Your task to perform on an android device: Set the phone to "Do not disturb". Image 0: 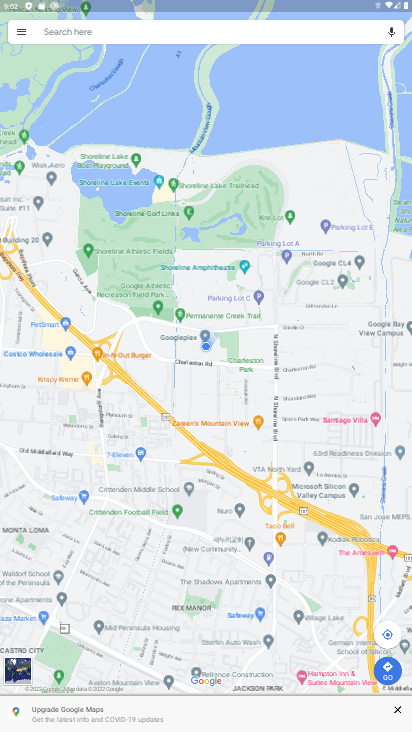
Step 0: press home button
Your task to perform on an android device: Set the phone to "Do not disturb". Image 1: 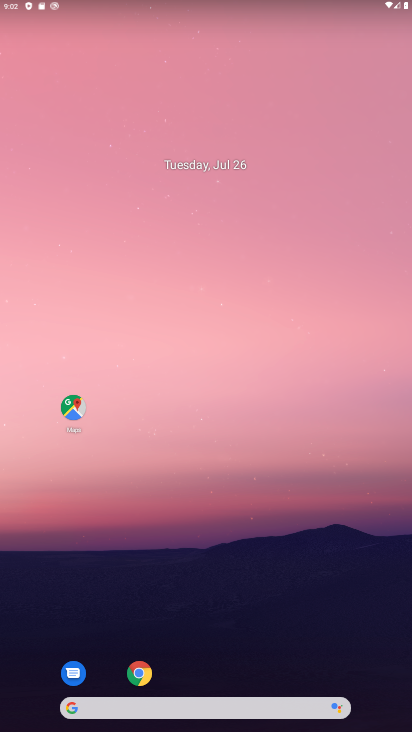
Step 1: drag from (233, 673) to (285, 10)
Your task to perform on an android device: Set the phone to "Do not disturb". Image 2: 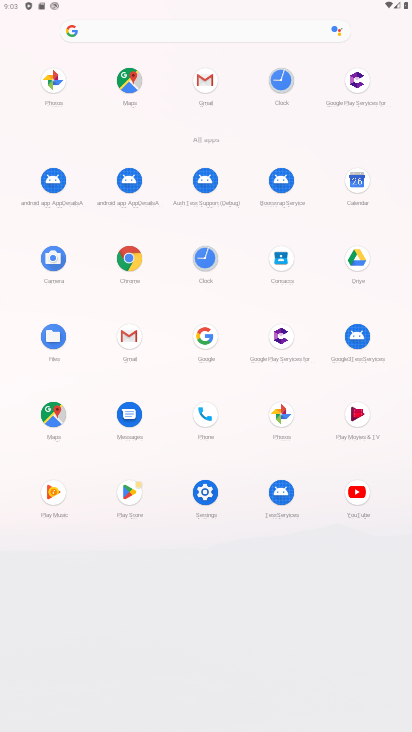
Step 2: click (199, 490)
Your task to perform on an android device: Set the phone to "Do not disturb". Image 3: 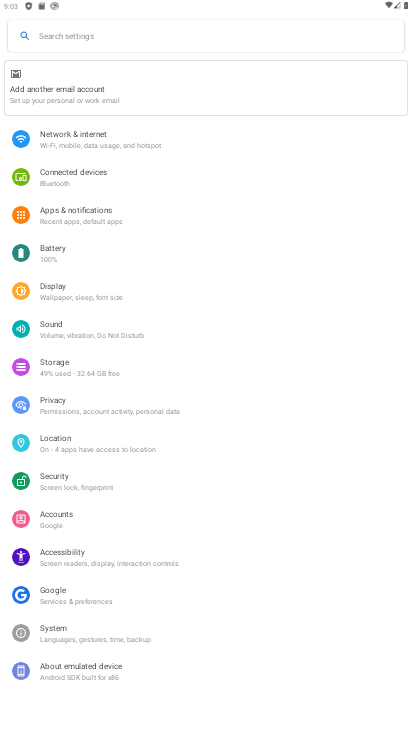
Step 3: click (65, 335)
Your task to perform on an android device: Set the phone to "Do not disturb". Image 4: 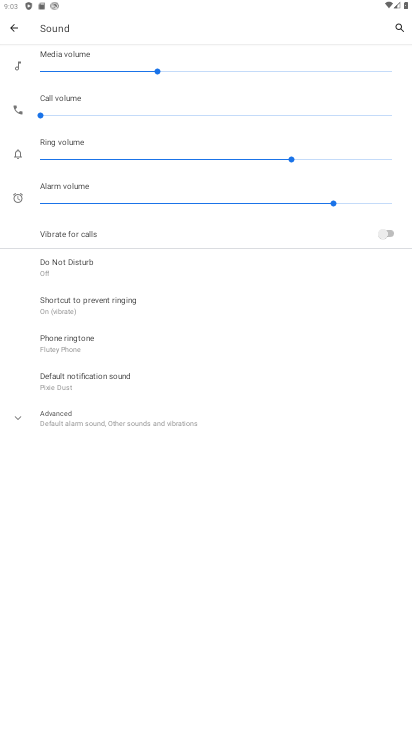
Step 4: click (48, 267)
Your task to perform on an android device: Set the phone to "Do not disturb". Image 5: 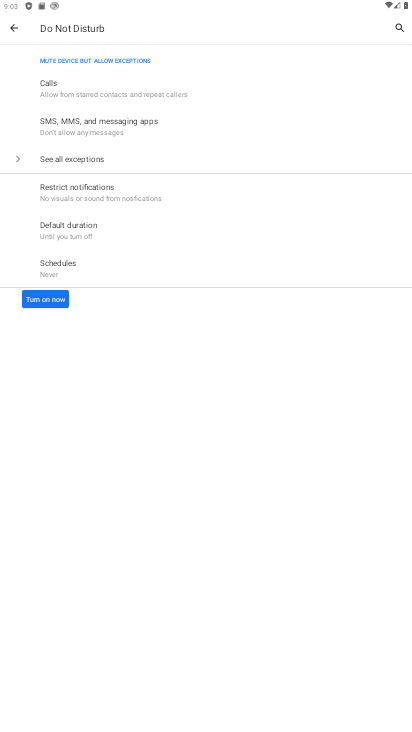
Step 5: click (44, 301)
Your task to perform on an android device: Set the phone to "Do not disturb". Image 6: 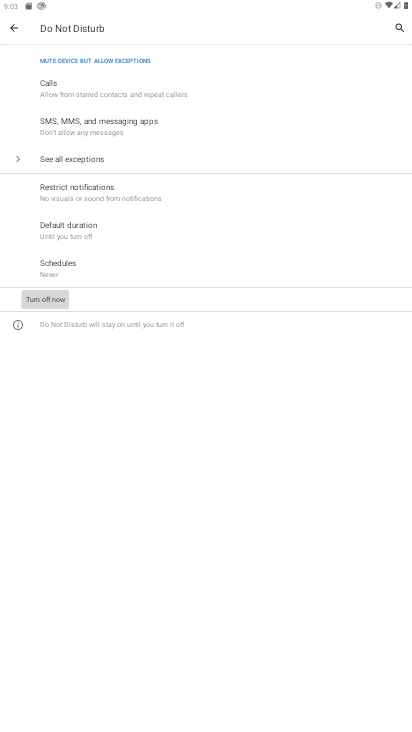
Step 6: task complete